Your task to perform on an android device: Open Google Chrome Image 0: 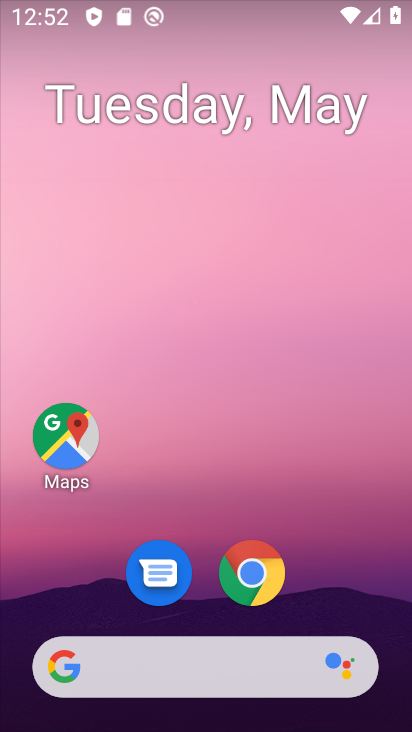
Step 0: drag from (349, 526) to (363, 101)
Your task to perform on an android device: Open Google Chrome Image 1: 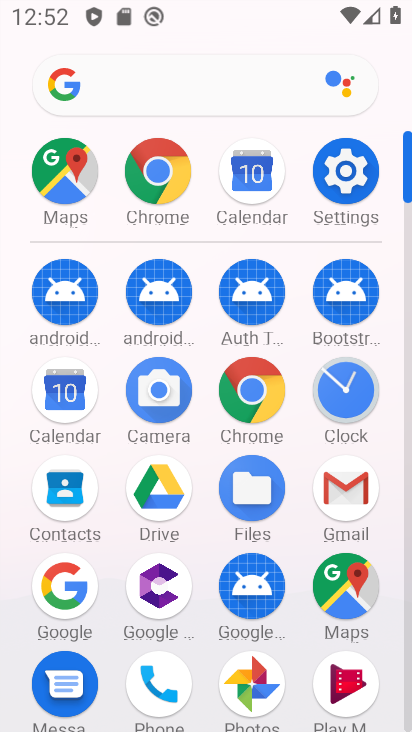
Step 1: click (82, 579)
Your task to perform on an android device: Open Google Chrome Image 2: 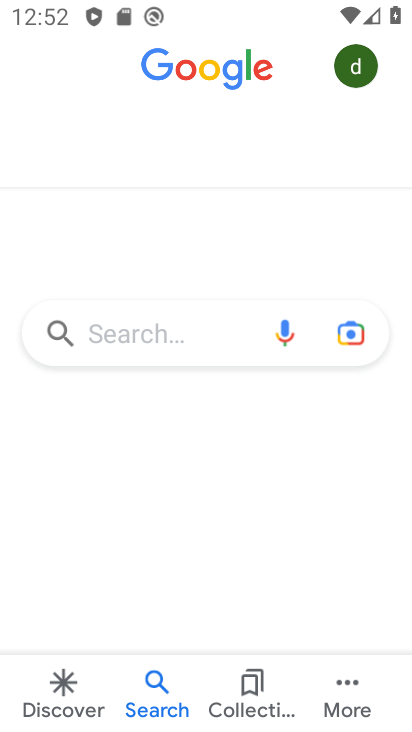
Step 2: task complete